Your task to perform on an android device: allow cookies in the chrome app Image 0: 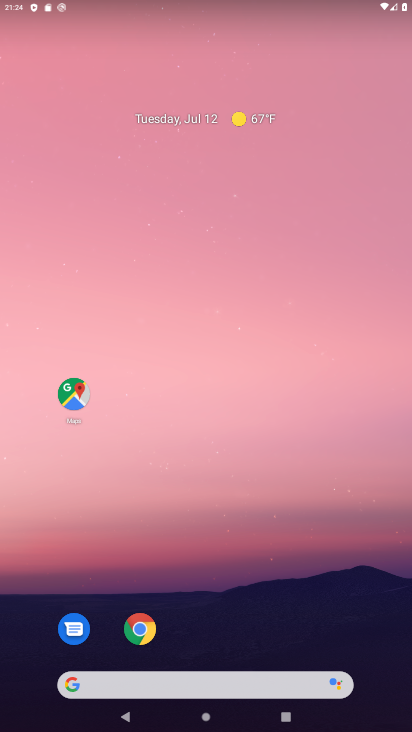
Step 0: click (135, 629)
Your task to perform on an android device: allow cookies in the chrome app Image 1: 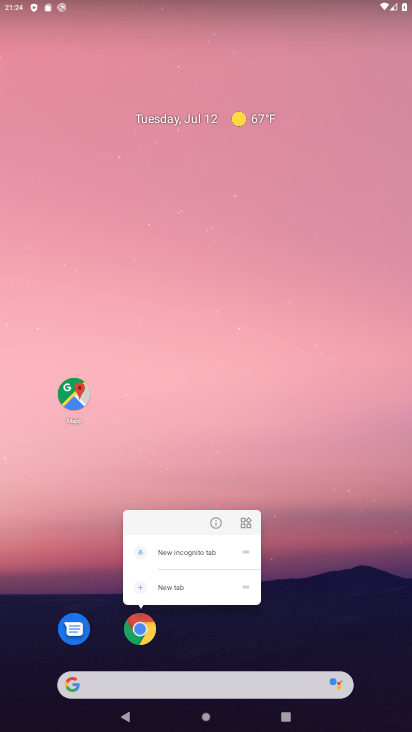
Step 1: click (135, 629)
Your task to perform on an android device: allow cookies in the chrome app Image 2: 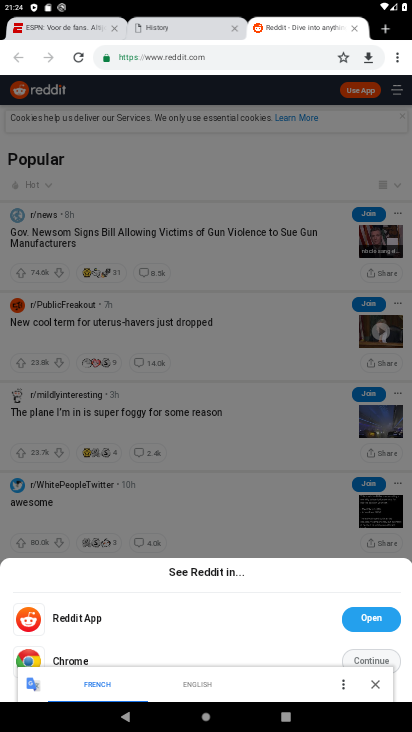
Step 2: click (397, 51)
Your task to perform on an android device: allow cookies in the chrome app Image 3: 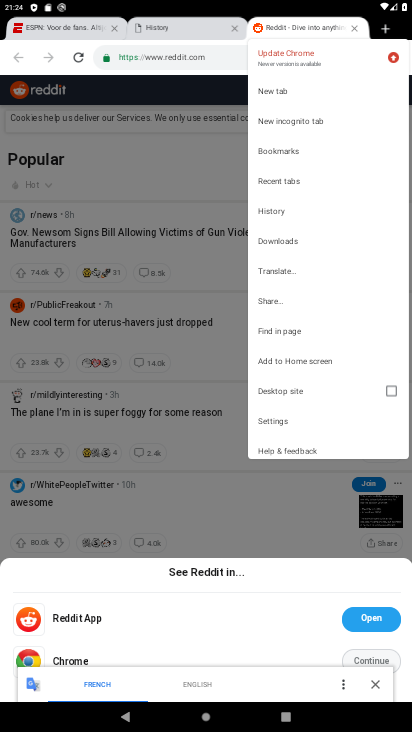
Step 3: click (282, 421)
Your task to perform on an android device: allow cookies in the chrome app Image 4: 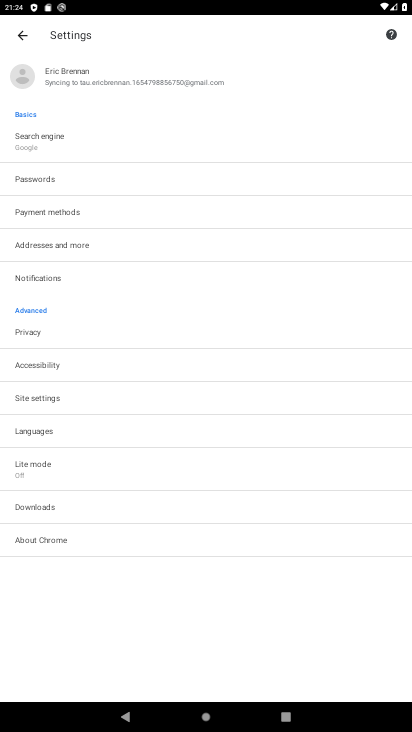
Step 4: click (44, 393)
Your task to perform on an android device: allow cookies in the chrome app Image 5: 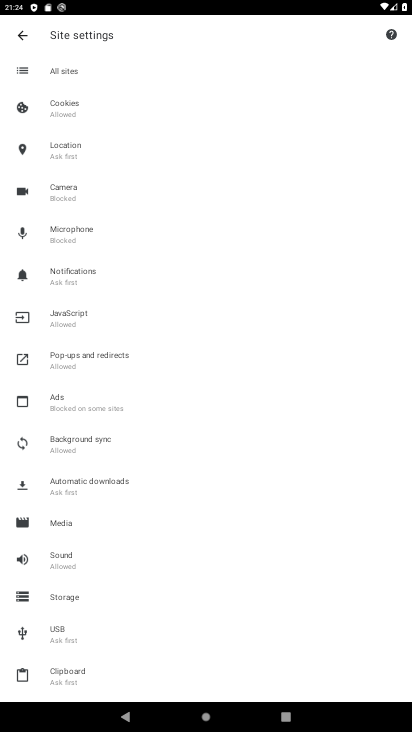
Step 5: click (51, 115)
Your task to perform on an android device: allow cookies in the chrome app Image 6: 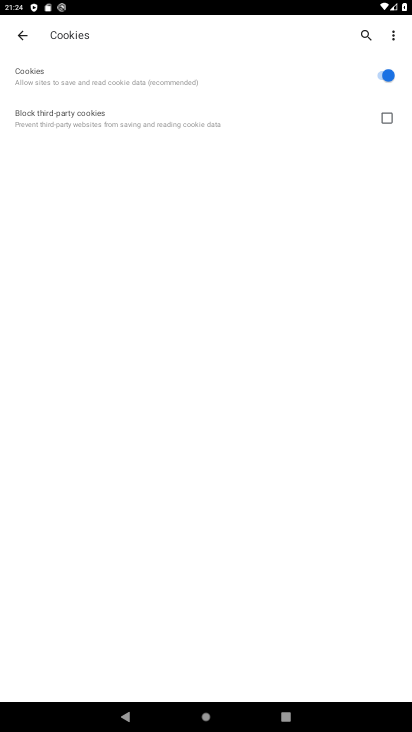
Step 6: task complete